Your task to perform on an android device: Go to eBay Image 0: 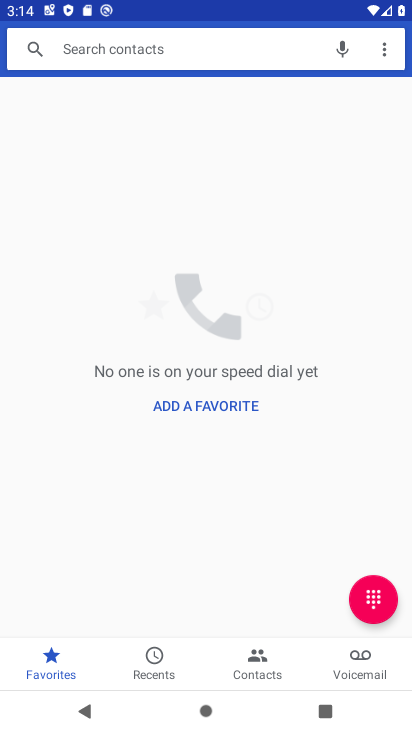
Step 0: press home button
Your task to perform on an android device: Go to eBay Image 1: 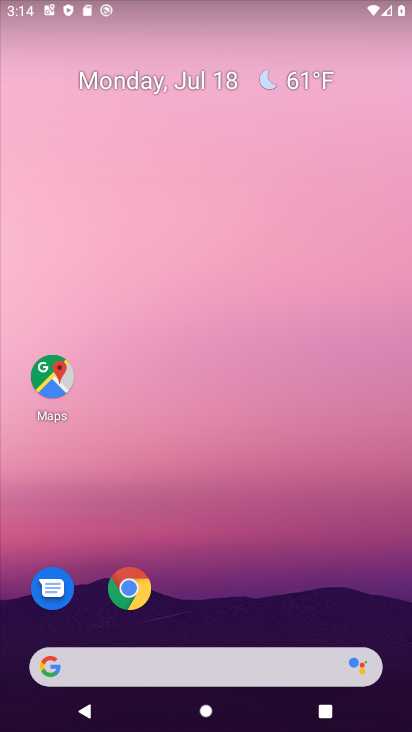
Step 1: click (140, 602)
Your task to perform on an android device: Go to eBay Image 2: 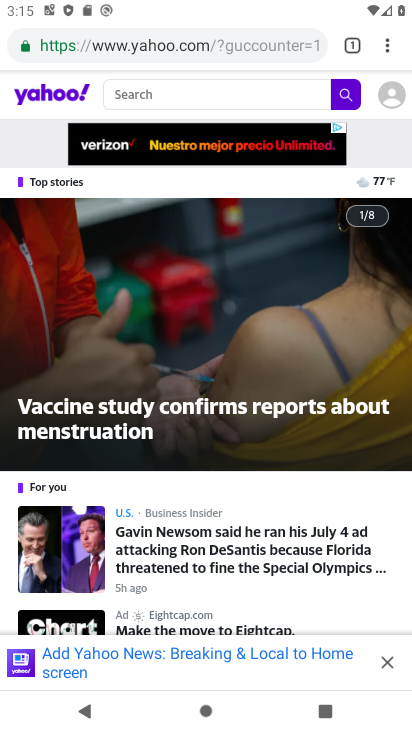
Step 2: click (267, 47)
Your task to perform on an android device: Go to eBay Image 3: 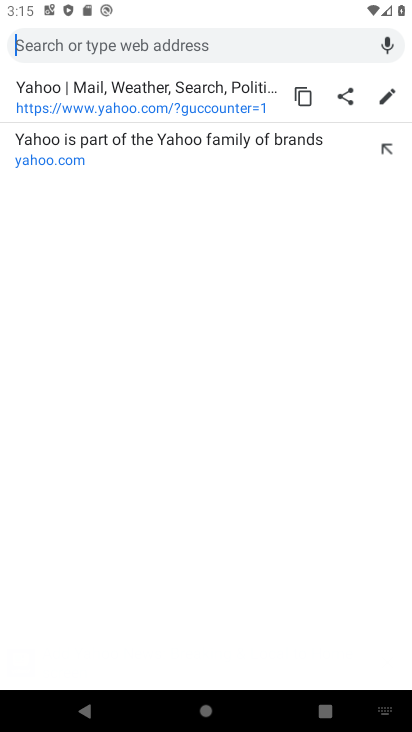
Step 3: type "ebay.com"
Your task to perform on an android device: Go to eBay Image 4: 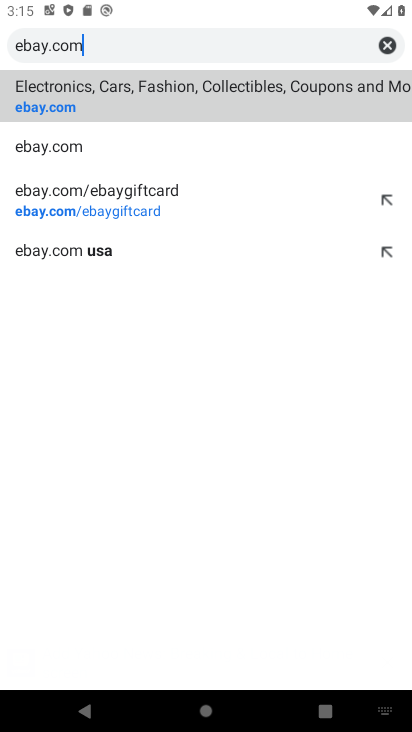
Step 4: click (117, 109)
Your task to perform on an android device: Go to eBay Image 5: 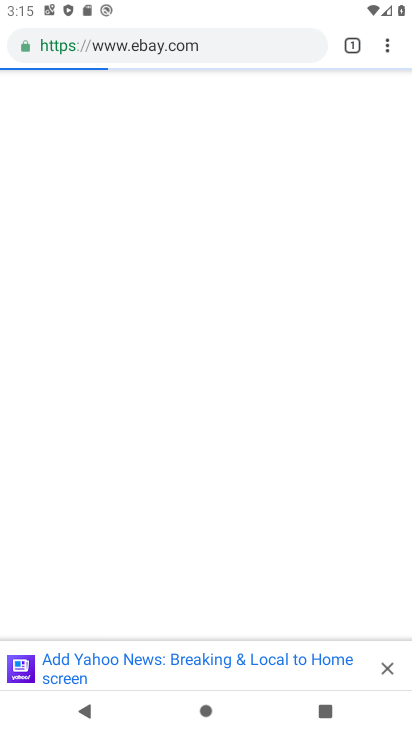
Step 5: task complete